Your task to perform on an android device: What's on my calendar tomorrow? Image 0: 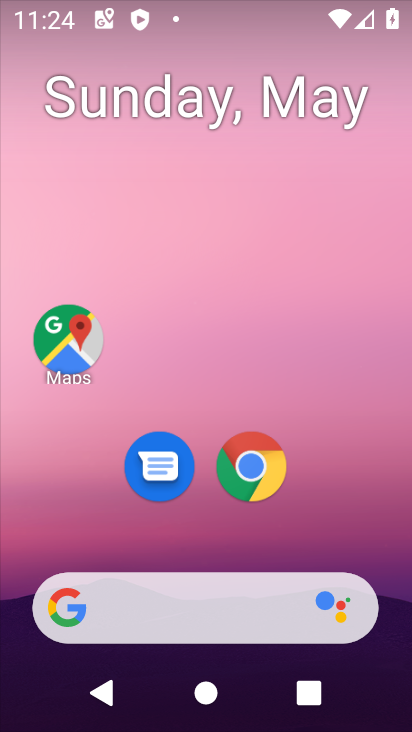
Step 0: drag from (397, 601) to (250, 50)
Your task to perform on an android device: What's on my calendar tomorrow? Image 1: 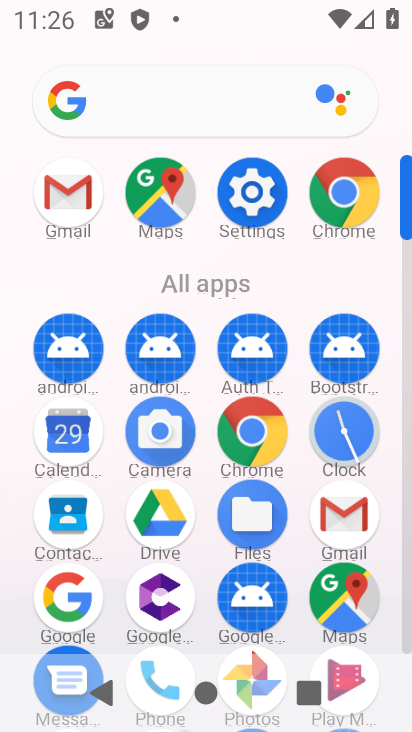
Step 1: click (80, 454)
Your task to perform on an android device: What's on my calendar tomorrow? Image 2: 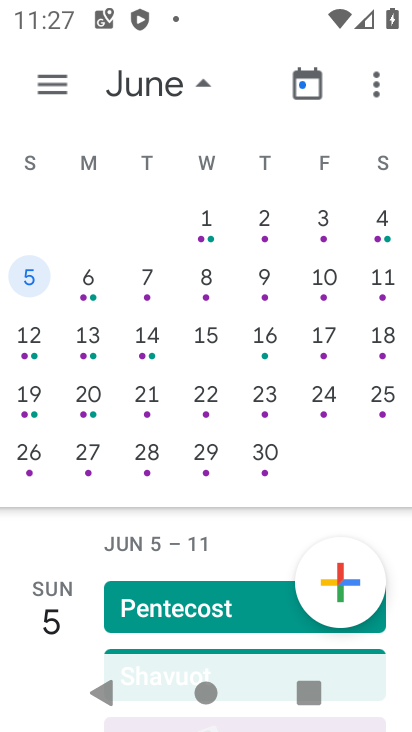
Step 2: task complete